Your task to perform on an android device: snooze an email in the gmail app Image 0: 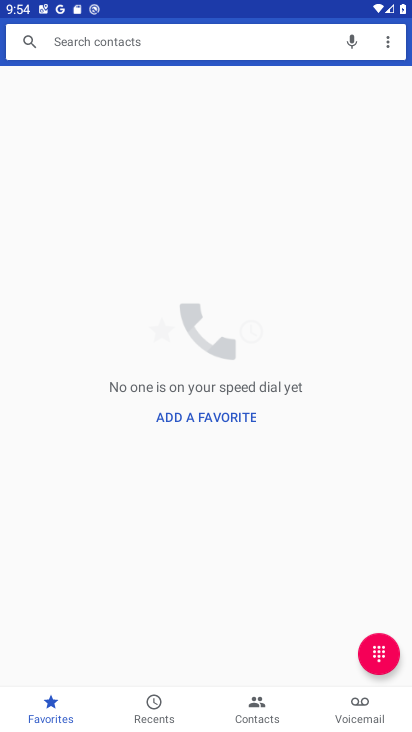
Step 0: press home button
Your task to perform on an android device: snooze an email in the gmail app Image 1: 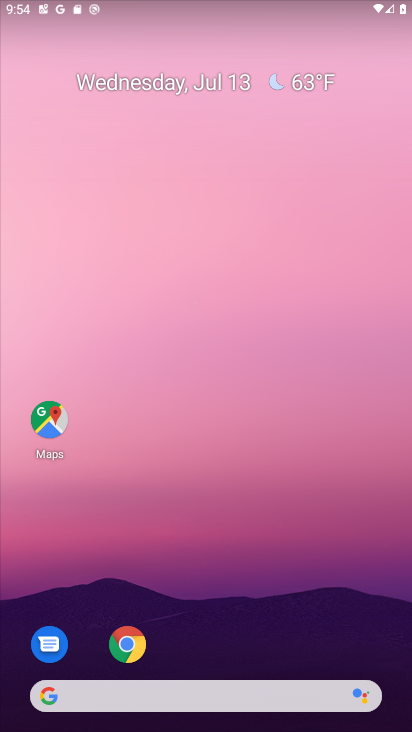
Step 1: drag from (260, 668) to (345, 16)
Your task to perform on an android device: snooze an email in the gmail app Image 2: 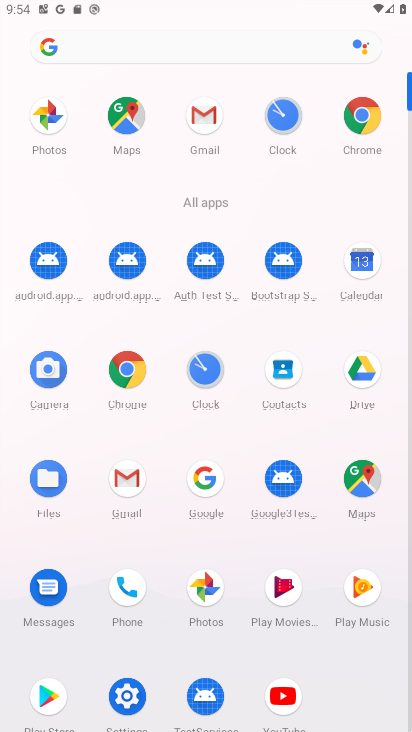
Step 2: click (144, 477)
Your task to perform on an android device: snooze an email in the gmail app Image 3: 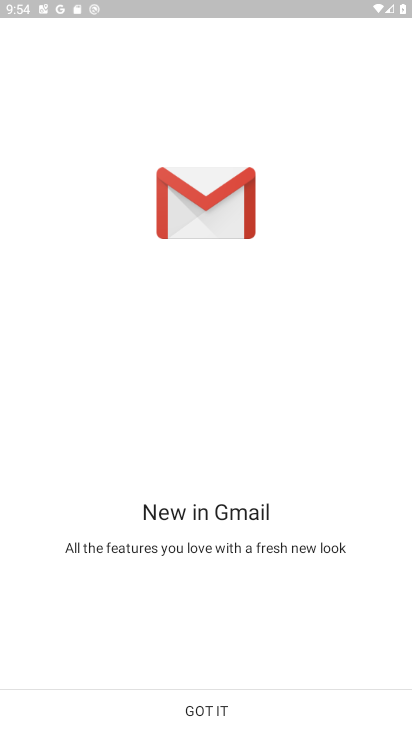
Step 3: click (189, 704)
Your task to perform on an android device: snooze an email in the gmail app Image 4: 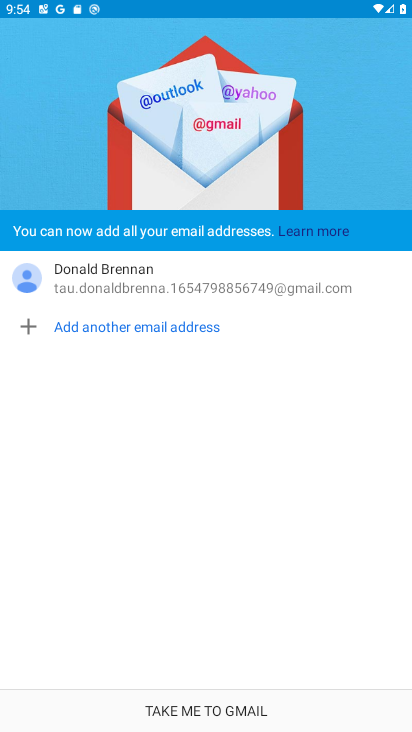
Step 4: click (222, 706)
Your task to perform on an android device: snooze an email in the gmail app Image 5: 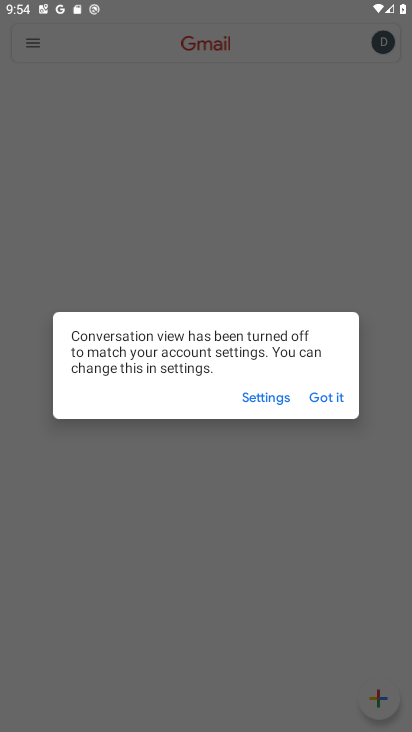
Step 5: click (344, 401)
Your task to perform on an android device: snooze an email in the gmail app Image 6: 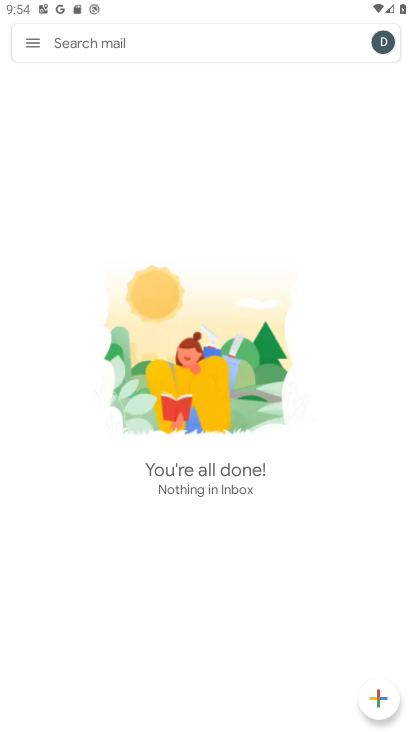
Step 6: click (26, 51)
Your task to perform on an android device: snooze an email in the gmail app Image 7: 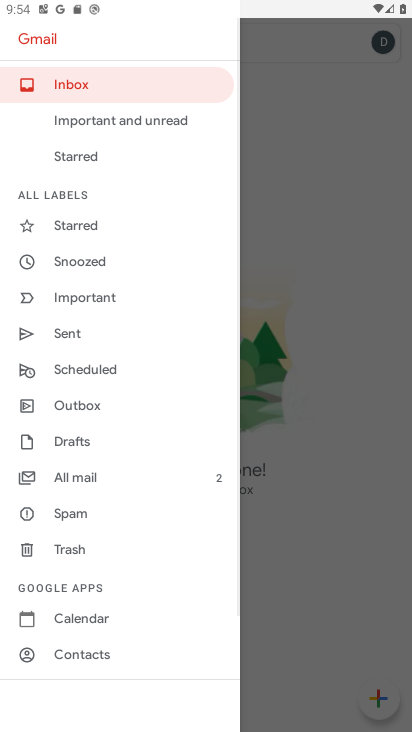
Step 7: click (111, 476)
Your task to perform on an android device: snooze an email in the gmail app Image 8: 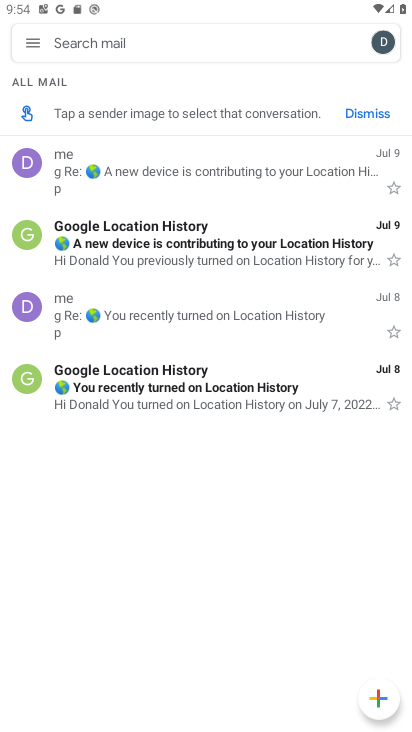
Step 8: click (217, 166)
Your task to perform on an android device: snooze an email in the gmail app Image 9: 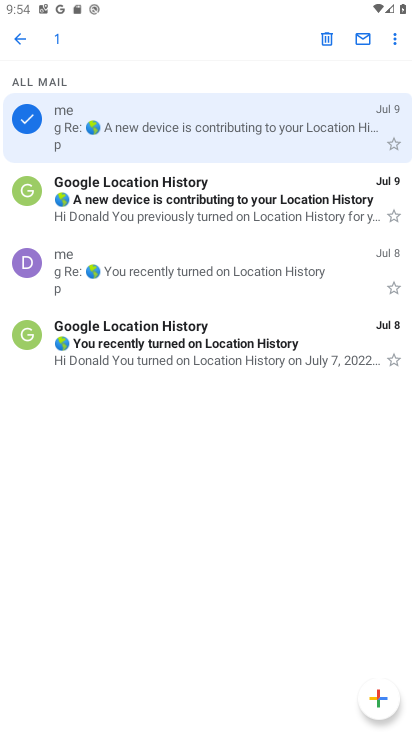
Step 9: click (394, 28)
Your task to perform on an android device: snooze an email in the gmail app Image 10: 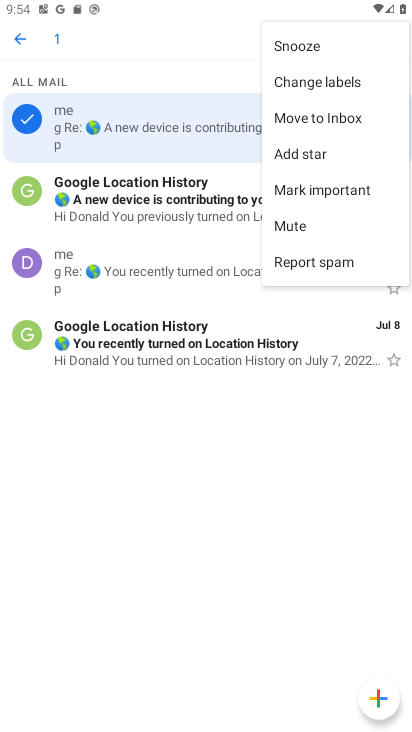
Step 10: click (330, 42)
Your task to perform on an android device: snooze an email in the gmail app Image 11: 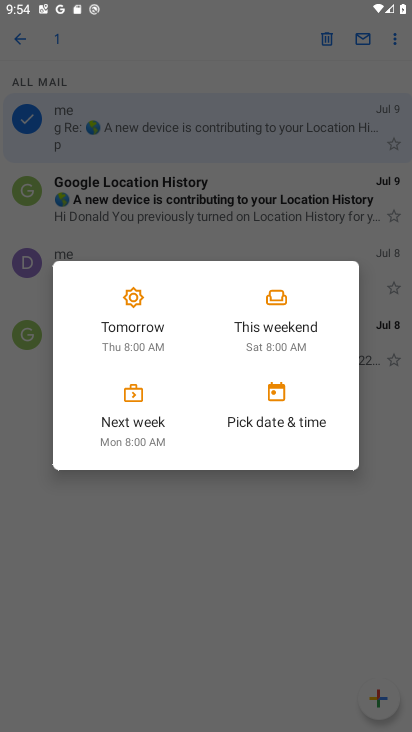
Step 11: click (171, 410)
Your task to perform on an android device: snooze an email in the gmail app Image 12: 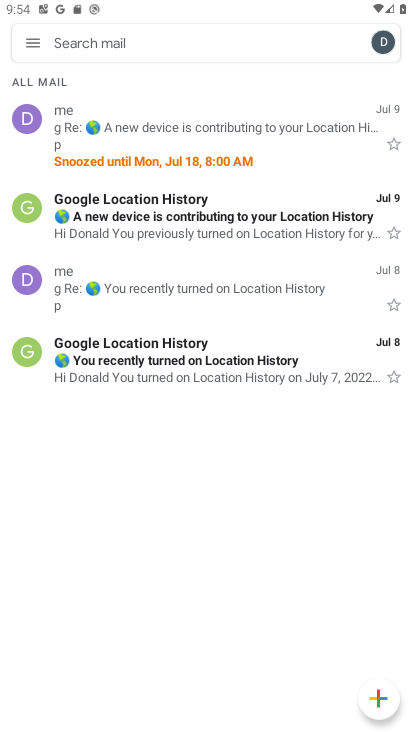
Step 12: task complete